Your task to perform on an android device: refresh tabs in the chrome app Image 0: 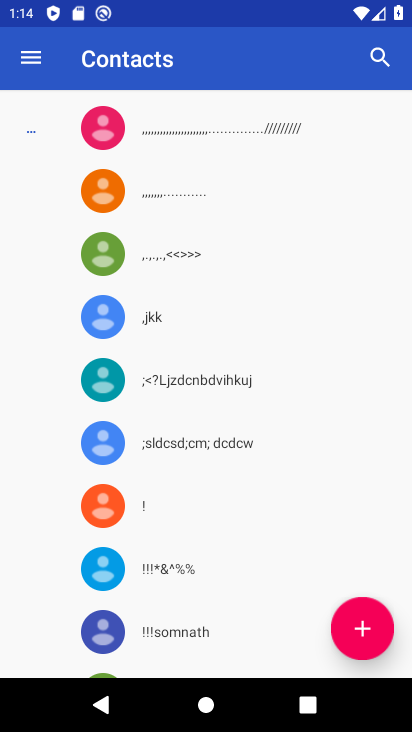
Step 0: press back button
Your task to perform on an android device: refresh tabs in the chrome app Image 1: 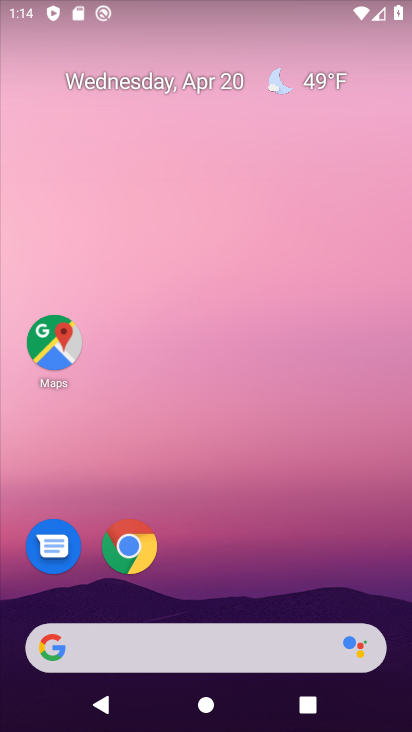
Step 1: click (126, 544)
Your task to perform on an android device: refresh tabs in the chrome app Image 2: 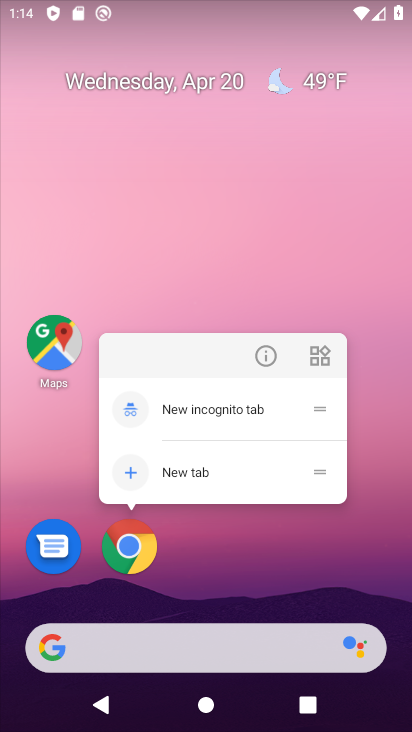
Step 2: click (125, 547)
Your task to perform on an android device: refresh tabs in the chrome app Image 3: 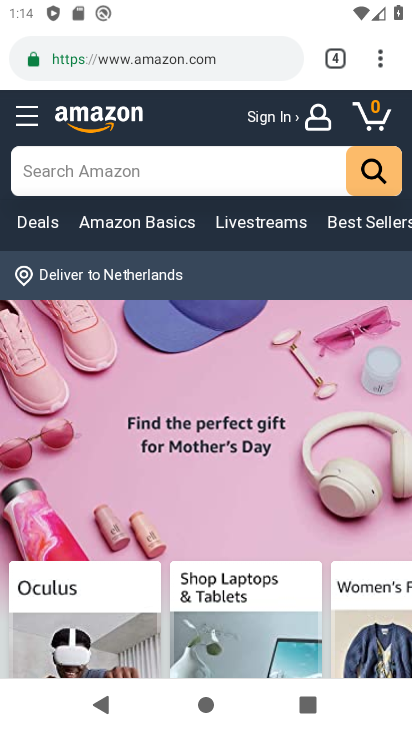
Step 3: click (383, 60)
Your task to perform on an android device: refresh tabs in the chrome app Image 4: 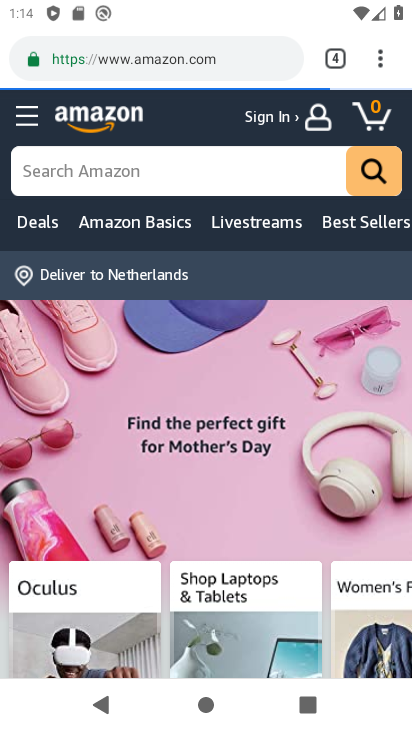
Step 4: task complete